Your task to perform on an android device: Do I have any events this weekend? Image 0: 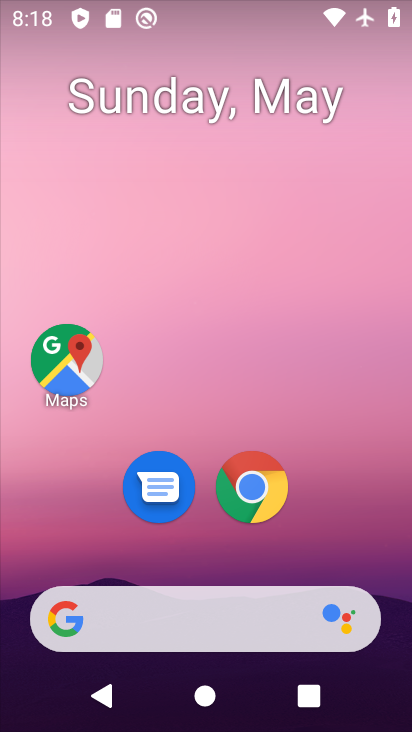
Step 0: drag from (208, 521) to (297, 0)
Your task to perform on an android device: Do I have any events this weekend? Image 1: 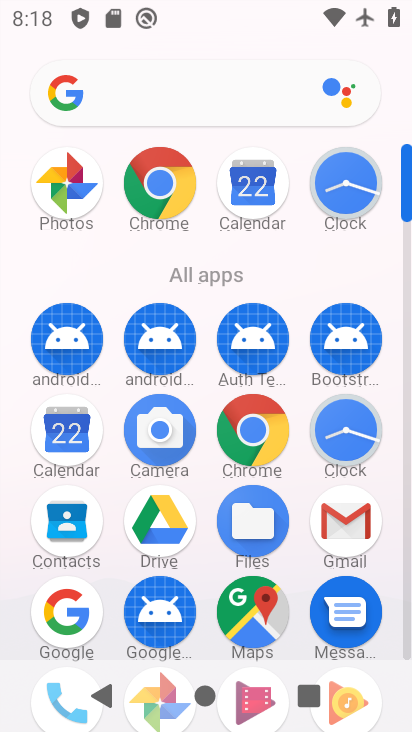
Step 1: click (40, 445)
Your task to perform on an android device: Do I have any events this weekend? Image 2: 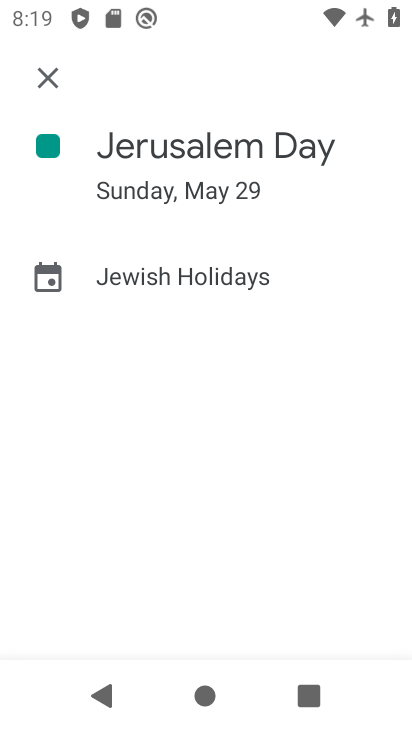
Step 2: click (36, 79)
Your task to perform on an android device: Do I have any events this weekend? Image 3: 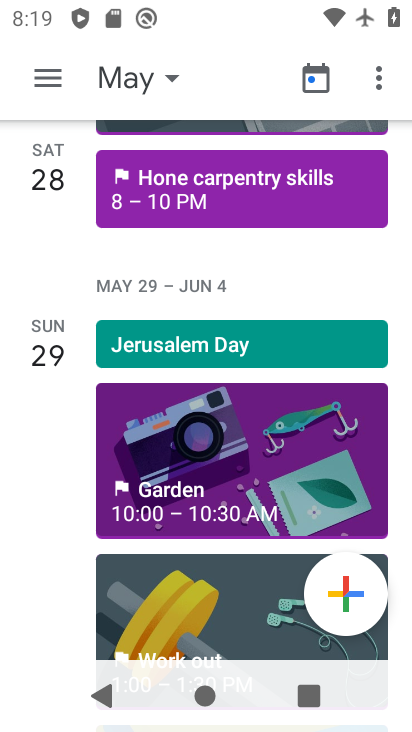
Step 3: task complete